Your task to perform on an android device: Check out the new nike air max 2020. Image 0: 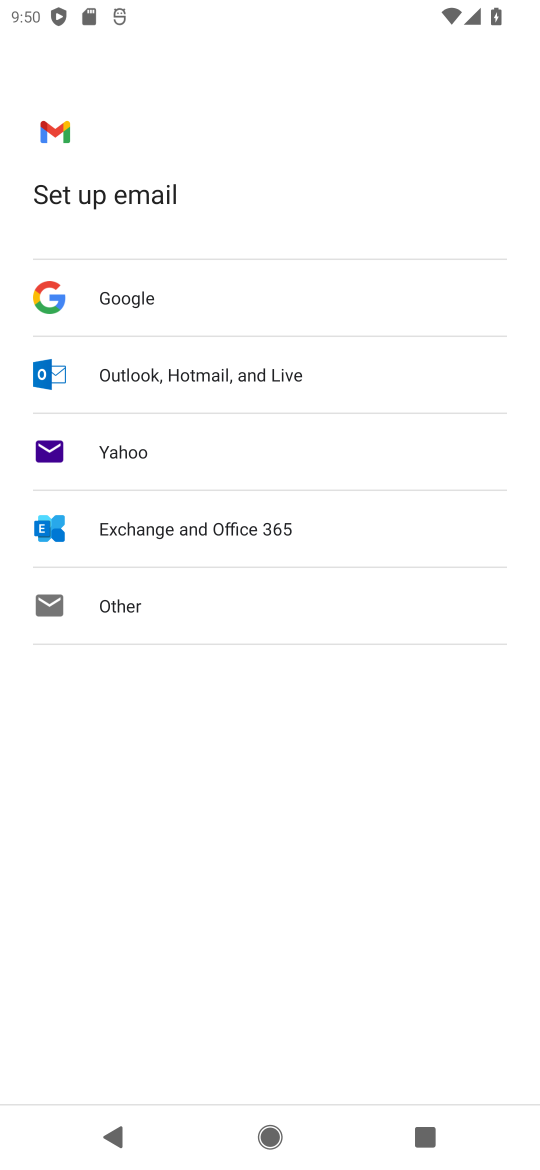
Step 0: task complete